Your task to perform on an android device: turn on javascript in the chrome app Image 0: 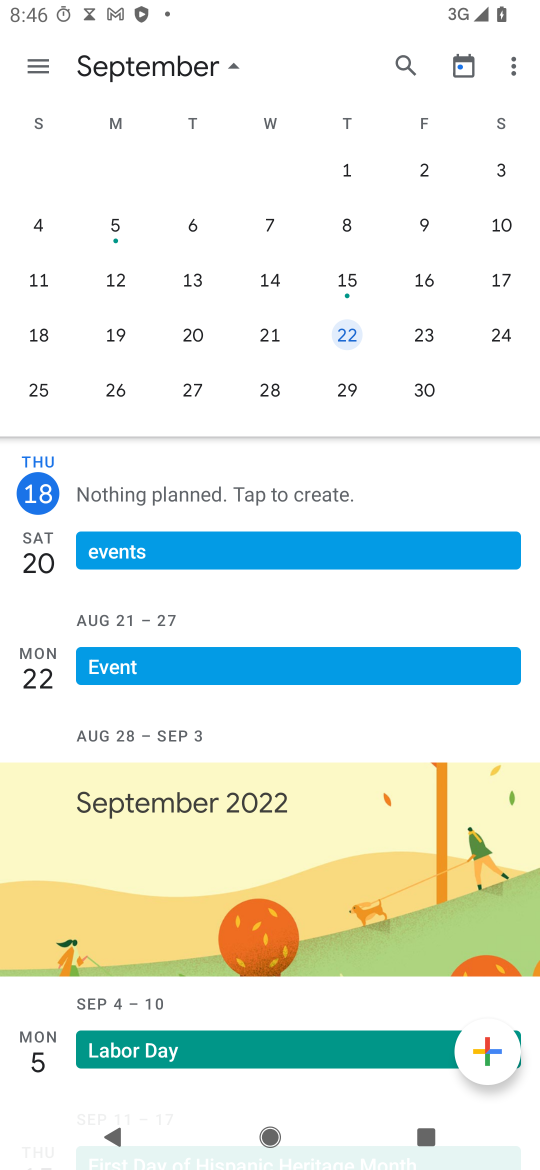
Step 0: press home button
Your task to perform on an android device: turn on javascript in the chrome app Image 1: 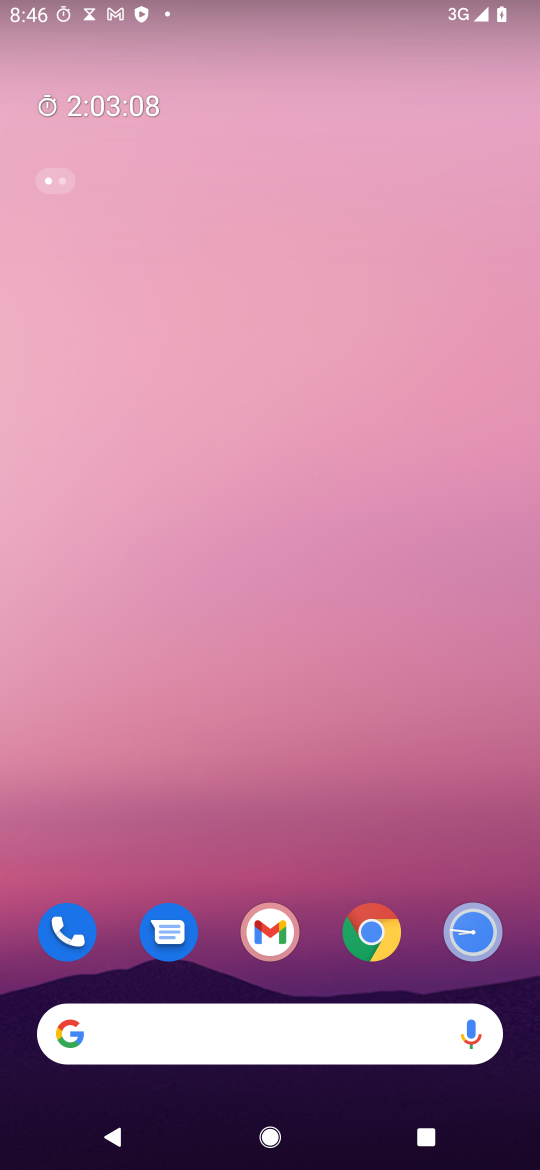
Step 1: drag from (342, 877) to (358, 0)
Your task to perform on an android device: turn on javascript in the chrome app Image 2: 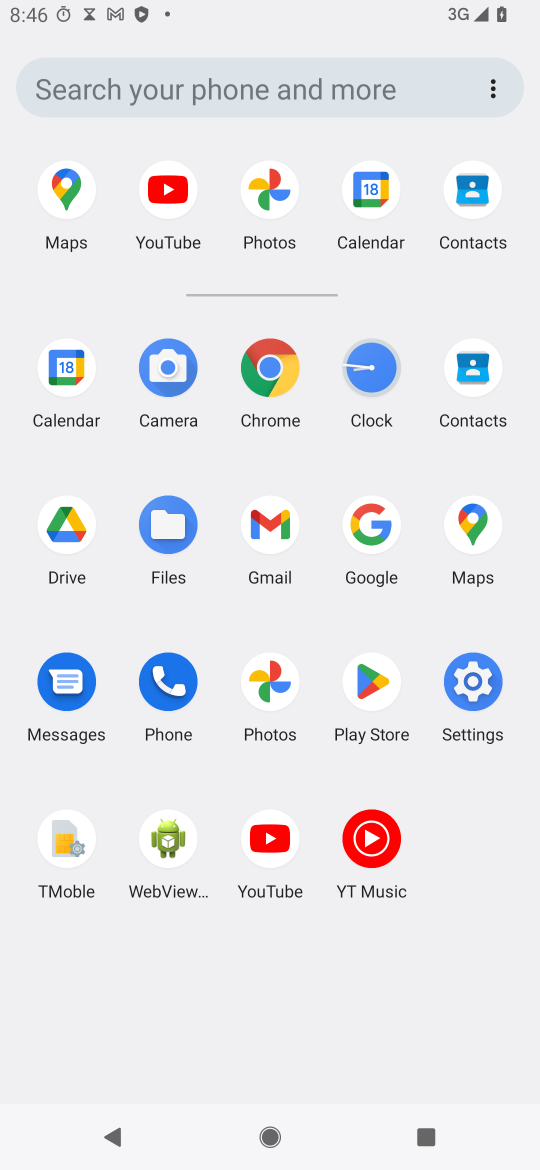
Step 2: click (273, 362)
Your task to perform on an android device: turn on javascript in the chrome app Image 3: 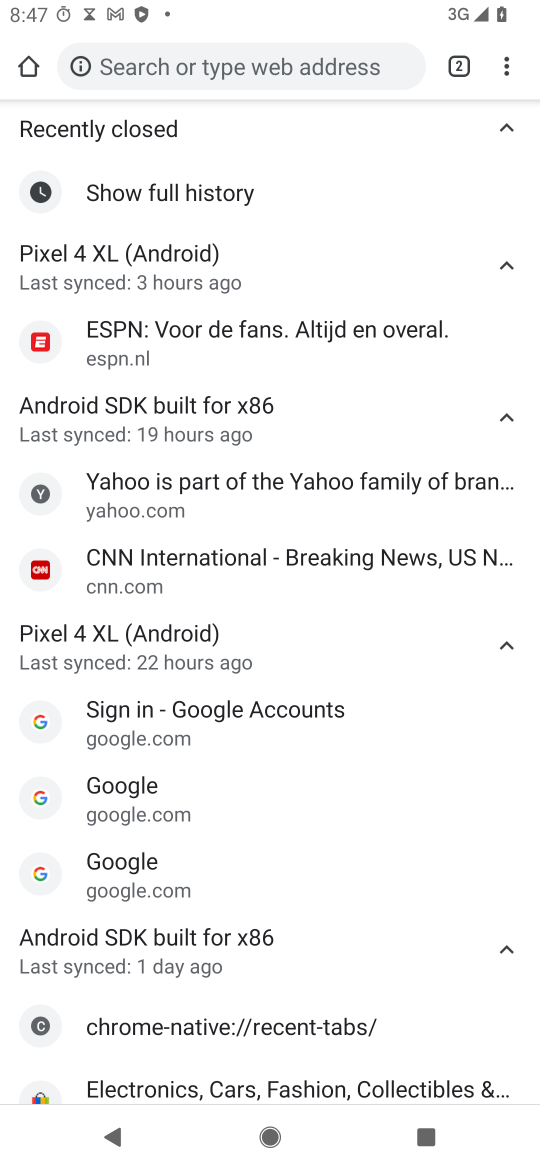
Step 3: drag from (511, 66) to (370, 634)
Your task to perform on an android device: turn on javascript in the chrome app Image 4: 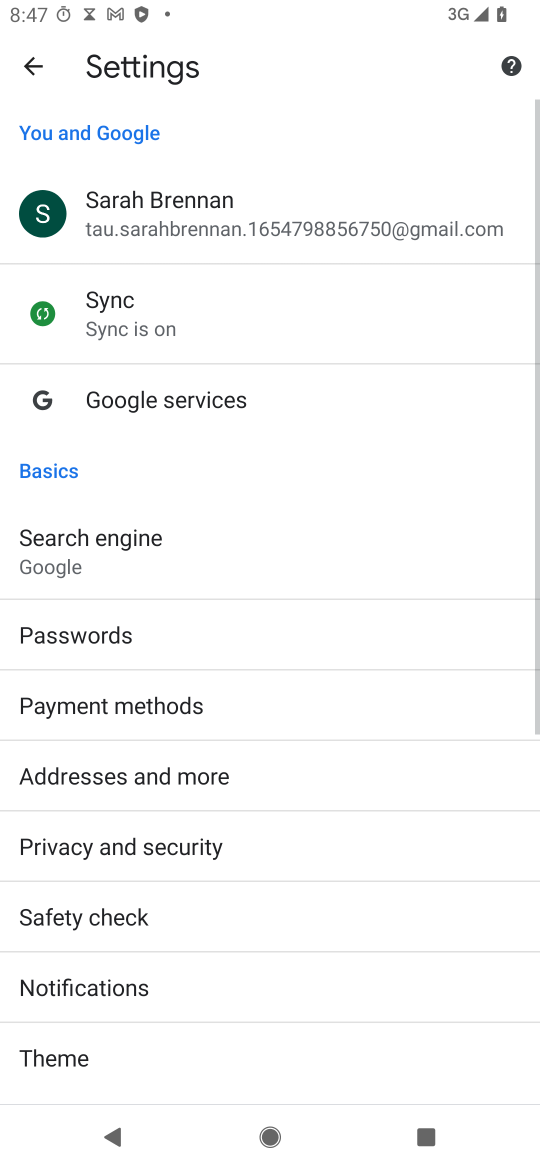
Step 4: drag from (221, 975) to (302, 357)
Your task to perform on an android device: turn on javascript in the chrome app Image 5: 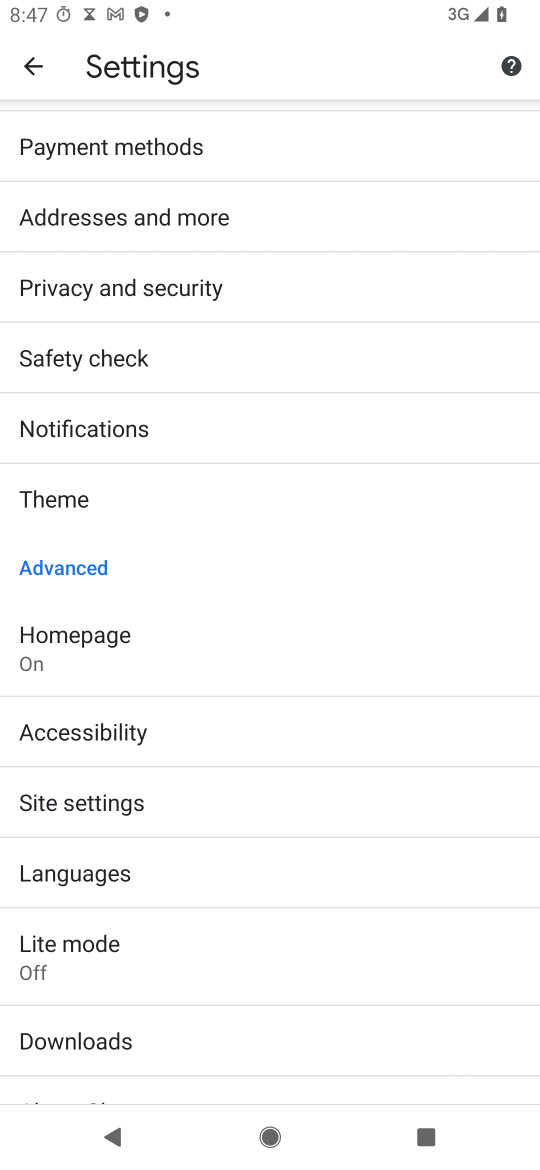
Step 5: click (151, 802)
Your task to perform on an android device: turn on javascript in the chrome app Image 6: 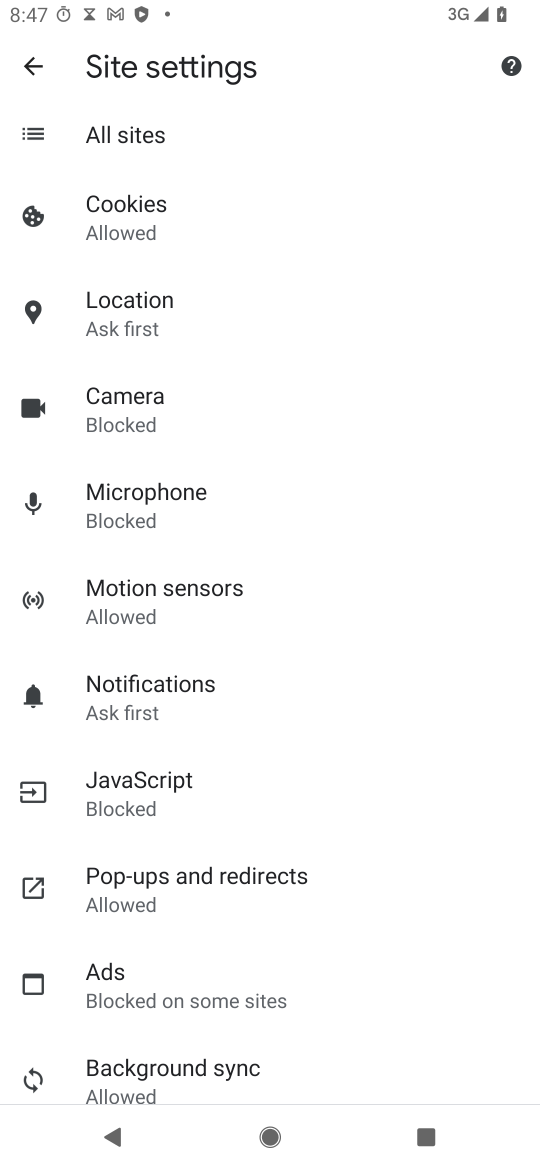
Step 6: click (148, 783)
Your task to perform on an android device: turn on javascript in the chrome app Image 7: 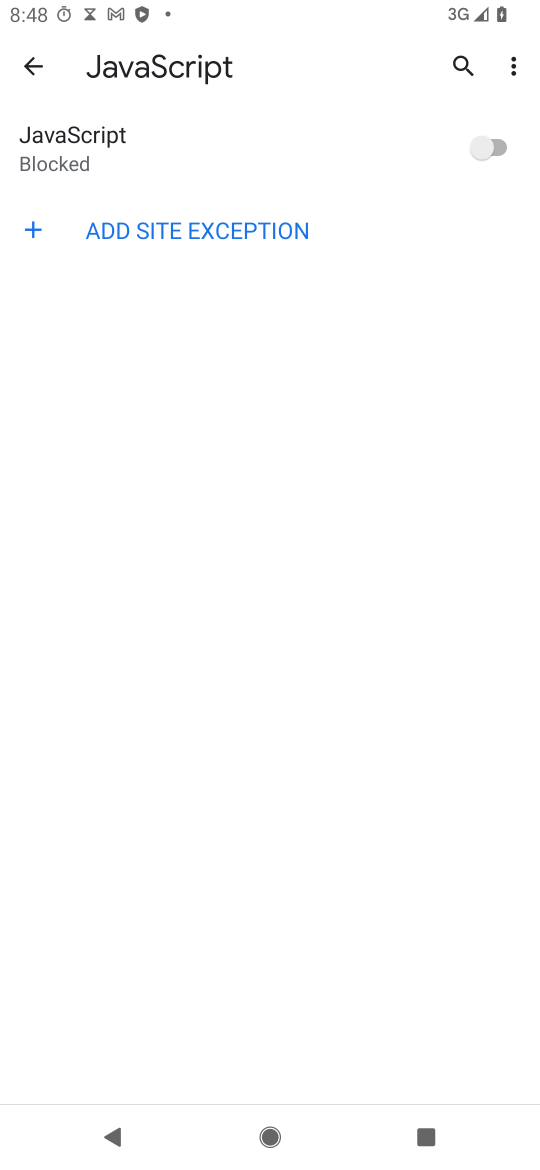
Step 7: click (427, 154)
Your task to perform on an android device: turn on javascript in the chrome app Image 8: 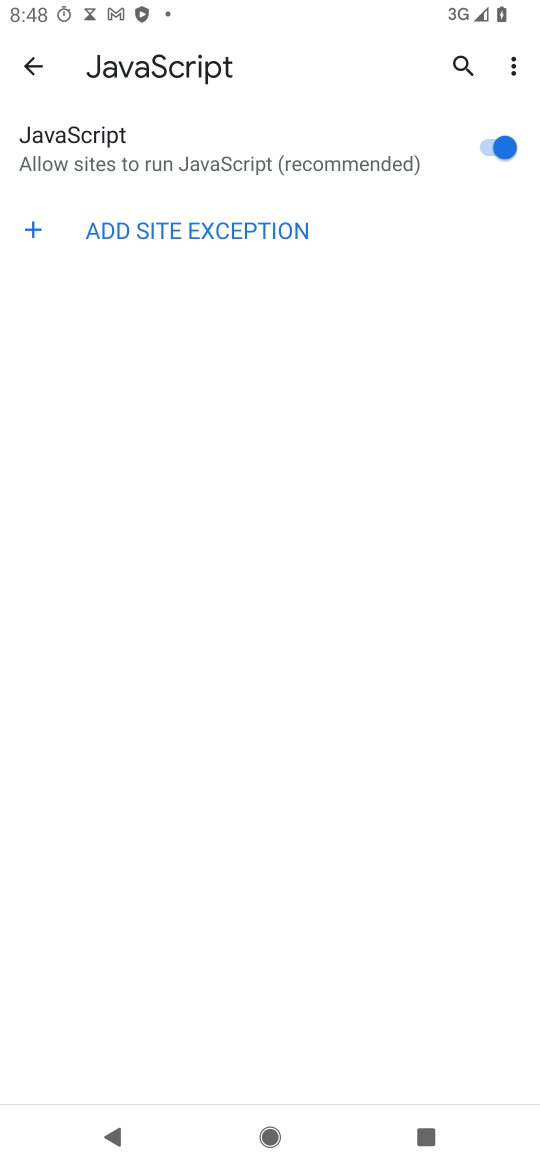
Step 8: task complete